Your task to perform on an android device: Go to Google Image 0: 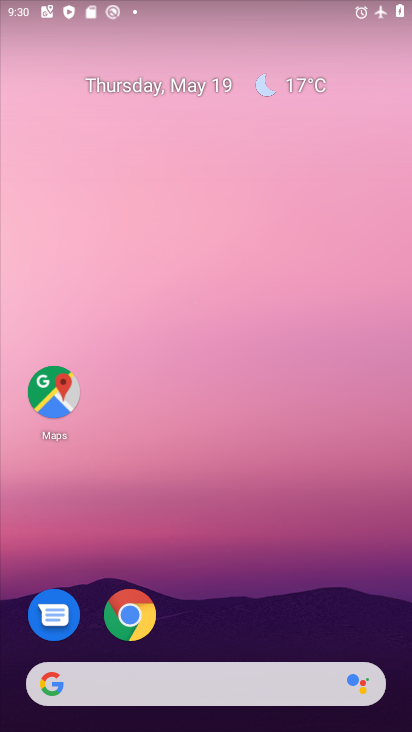
Step 0: press home button
Your task to perform on an android device: Go to Google Image 1: 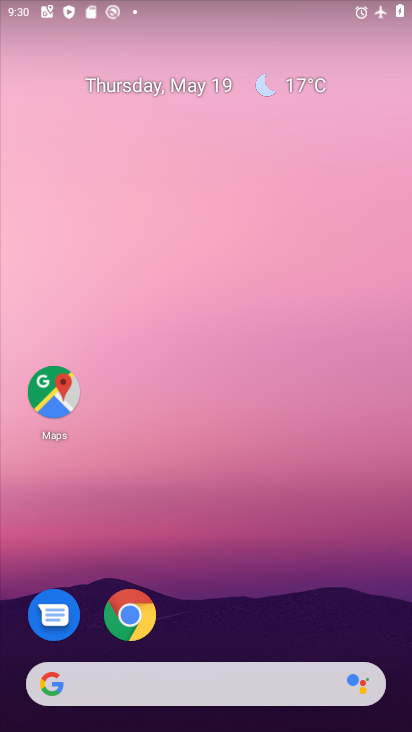
Step 1: drag from (266, 618) to (245, 83)
Your task to perform on an android device: Go to Google Image 2: 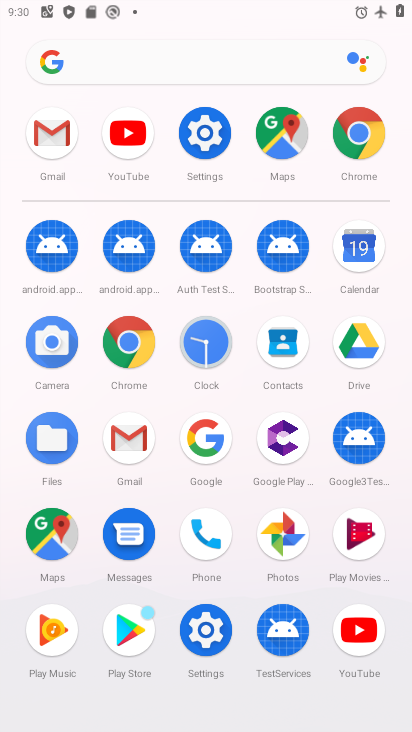
Step 2: click (190, 450)
Your task to perform on an android device: Go to Google Image 3: 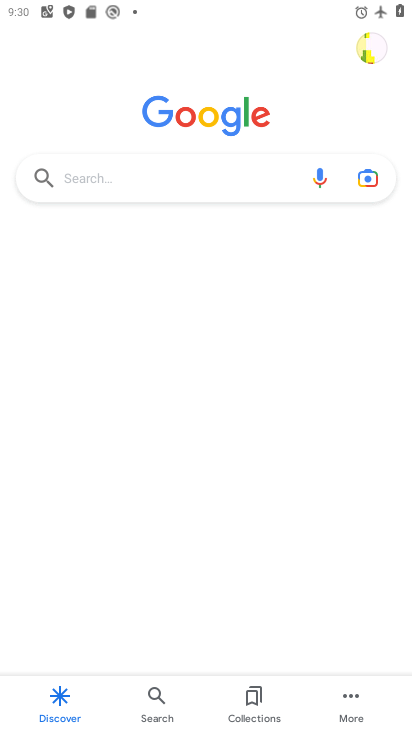
Step 3: task complete